Your task to perform on an android device: Go to eBay Image 0: 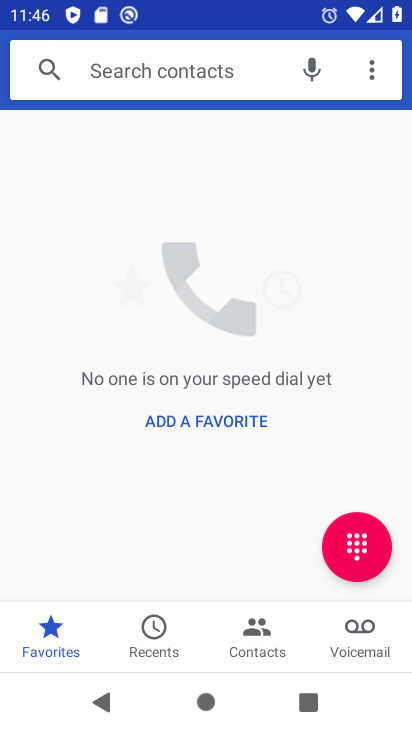
Step 0: press home button
Your task to perform on an android device: Go to eBay Image 1: 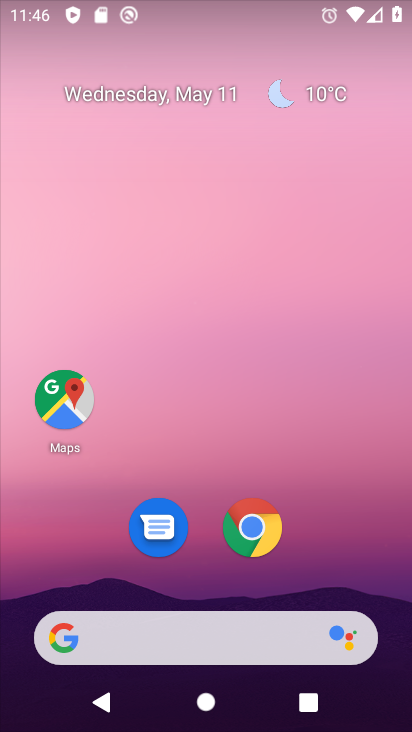
Step 1: drag from (211, 508) to (257, 3)
Your task to perform on an android device: Go to eBay Image 2: 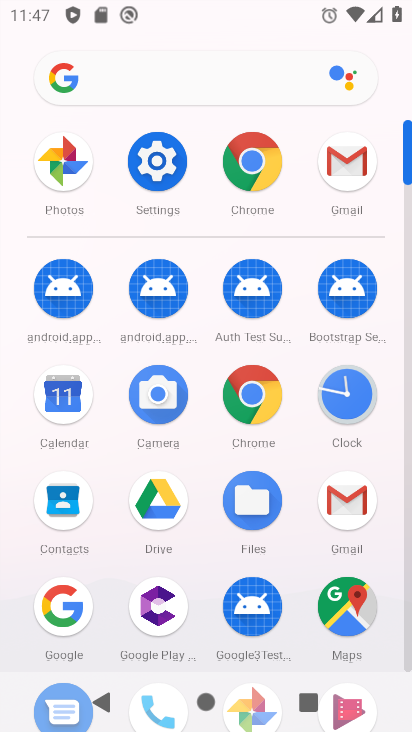
Step 2: click (264, 176)
Your task to perform on an android device: Go to eBay Image 3: 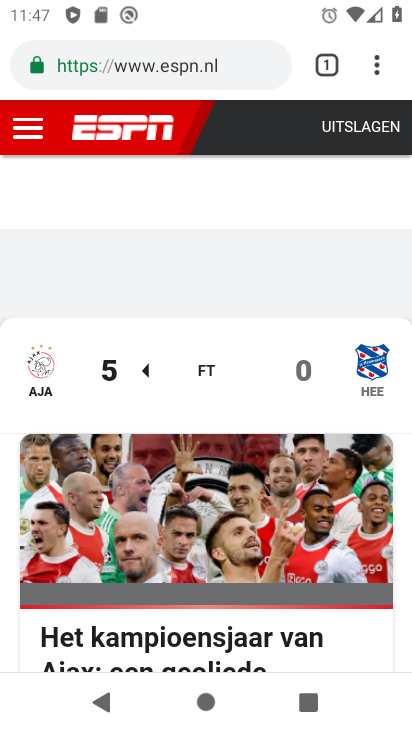
Step 3: click (231, 67)
Your task to perform on an android device: Go to eBay Image 4: 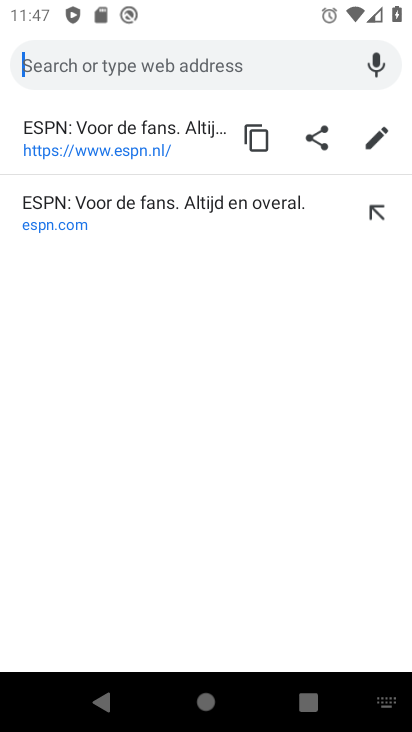
Step 4: type "eBay"
Your task to perform on an android device: Go to eBay Image 5: 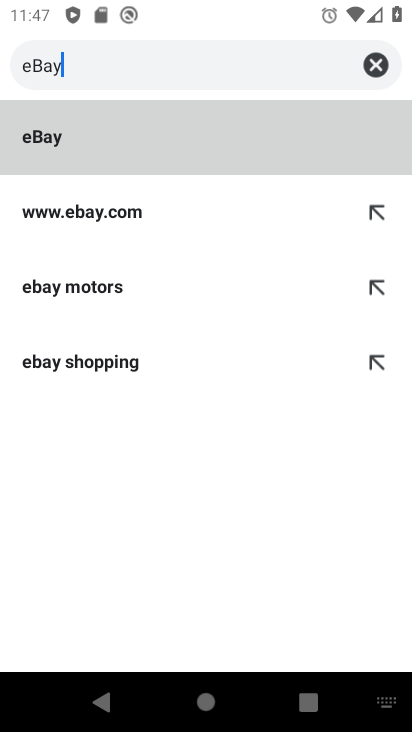
Step 5: click (107, 148)
Your task to perform on an android device: Go to eBay Image 6: 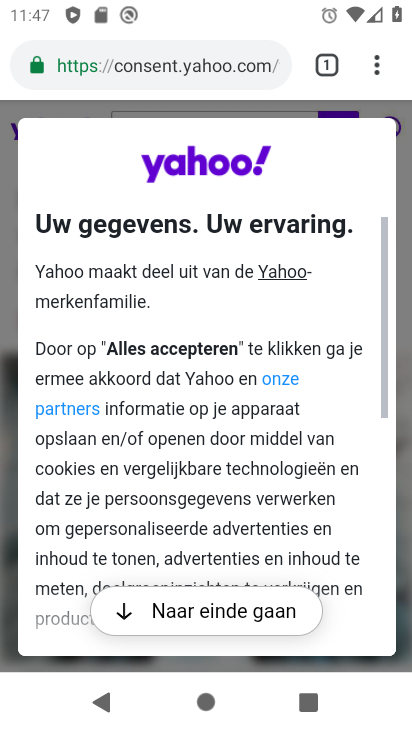
Step 6: task complete